Your task to perform on an android device: Go to privacy settings Image 0: 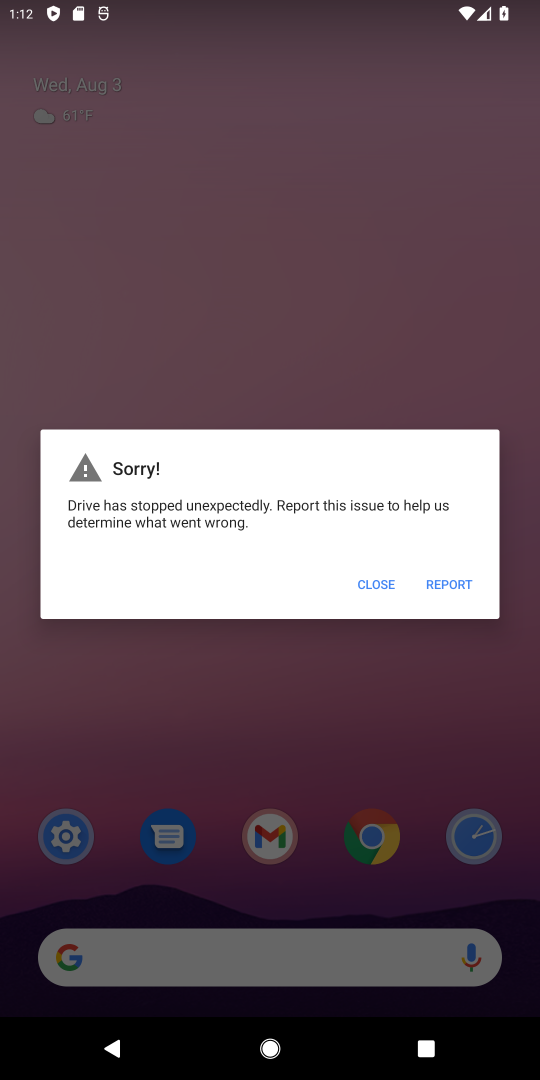
Step 0: press home button
Your task to perform on an android device: Go to privacy settings Image 1: 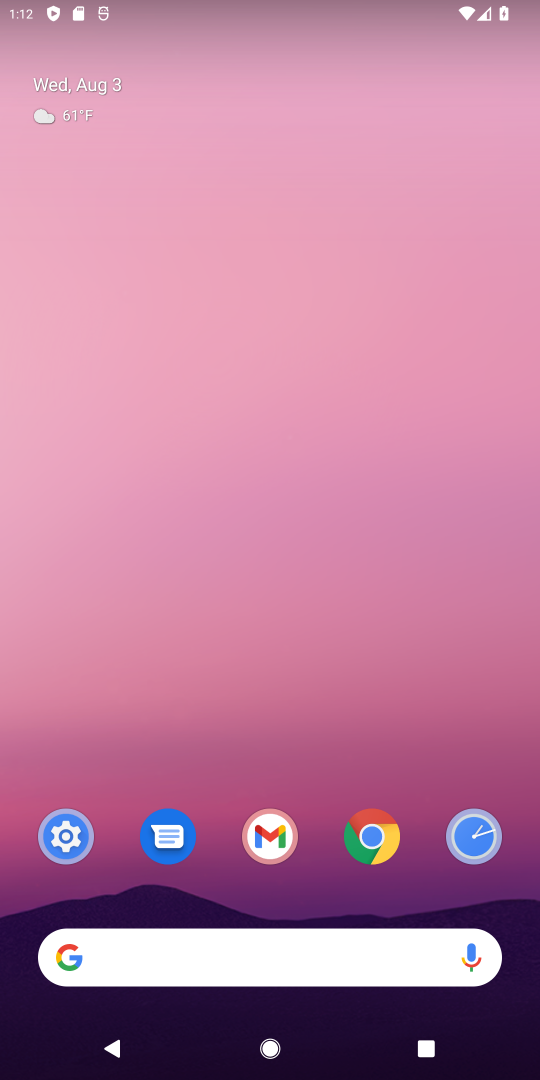
Step 1: drag from (215, 818) to (215, 215)
Your task to perform on an android device: Go to privacy settings Image 2: 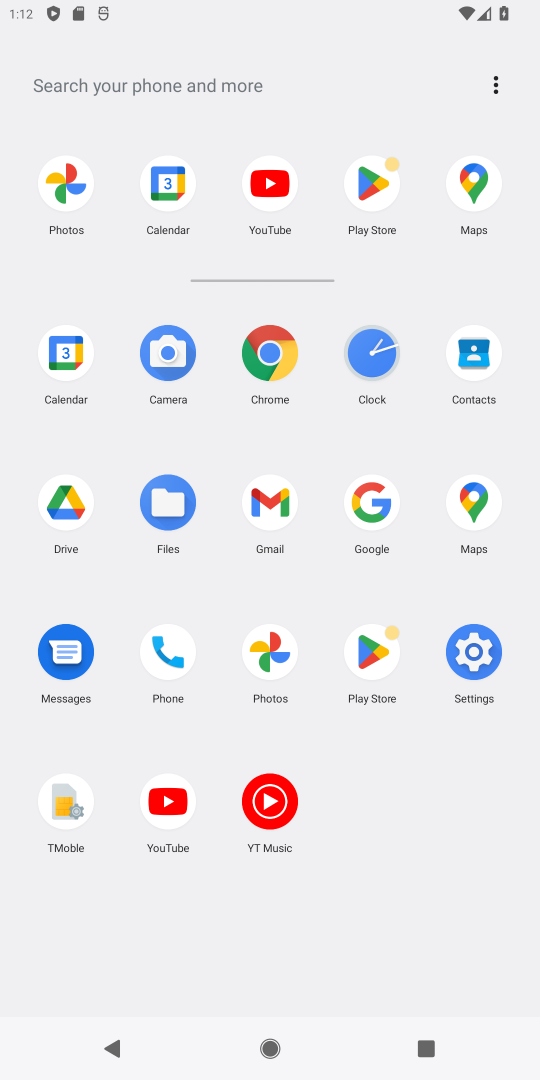
Step 2: click (474, 656)
Your task to perform on an android device: Go to privacy settings Image 3: 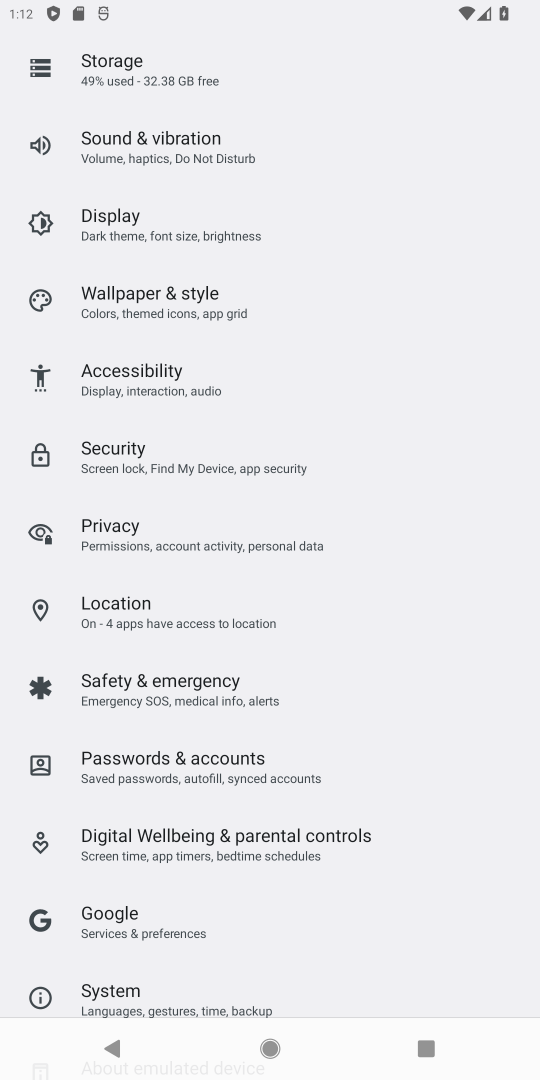
Step 3: click (129, 540)
Your task to perform on an android device: Go to privacy settings Image 4: 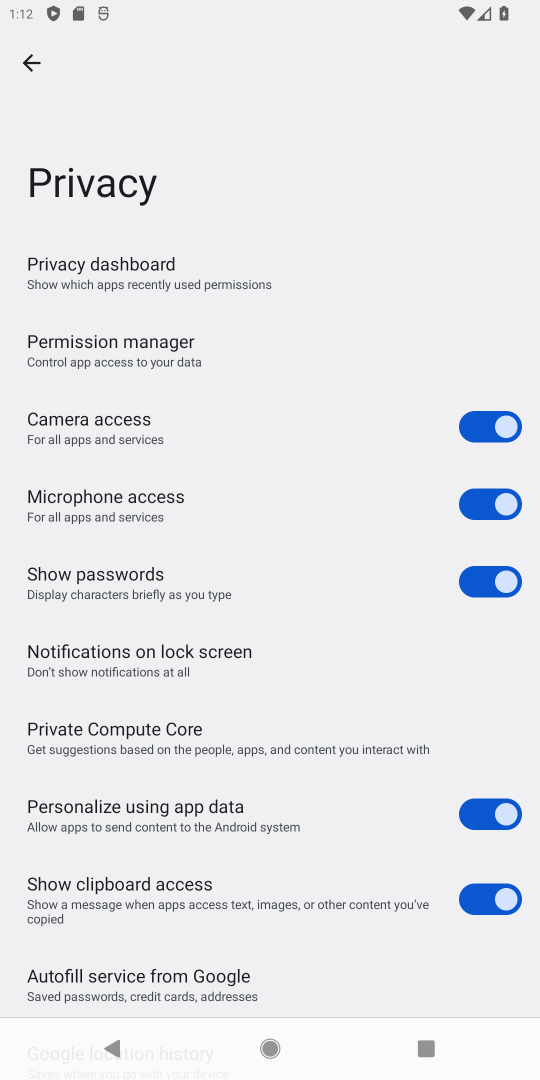
Step 4: task complete